Your task to perform on an android device: Open Youtube and go to the subscriptions tab Image 0: 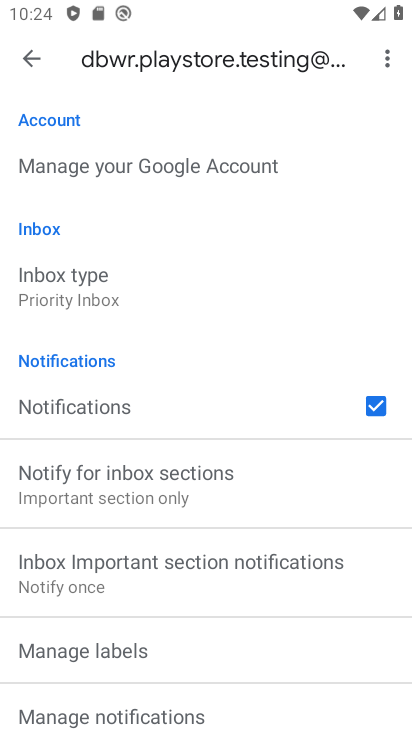
Step 0: press home button
Your task to perform on an android device: Open Youtube and go to the subscriptions tab Image 1: 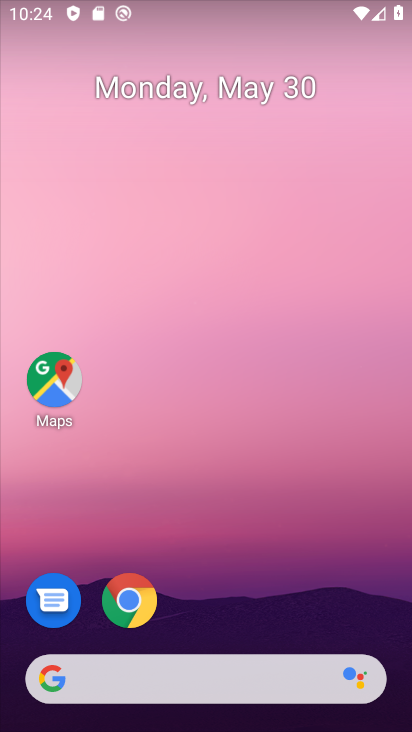
Step 1: drag from (292, 618) to (298, 188)
Your task to perform on an android device: Open Youtube and go to the subscriptions tab Image 2: 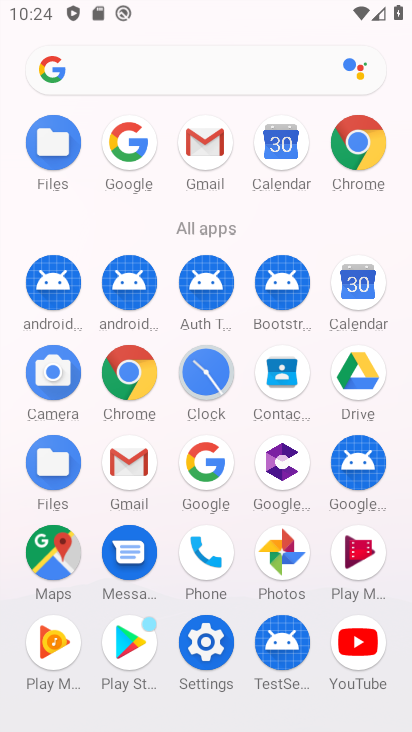
Step 2: click (361, 635)
Your task to perform on an android device: Open Youtube and go to the subscriptions tab Image 3: 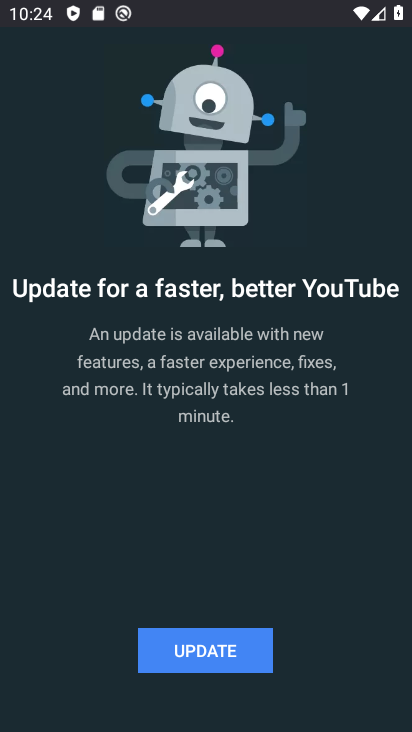
Step 3: click (230, 665)
Your task to perform on an android device: Open Youtube and go to the subscriptions tab Image 4: 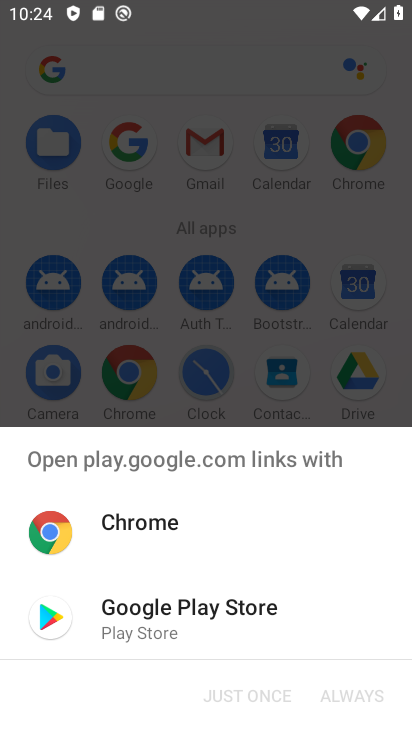
Step 4: click (206, 610)
Your task to perform on an android device: Open Youtube and go to the subscriptions tab Image 5: 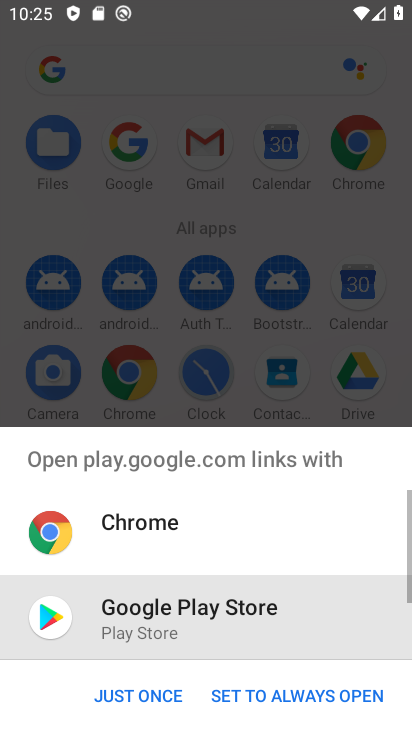
Step 5: click (268, 693)
Your task to perform on an android device: Open Youtube and go to the subscriptions tab Image 6: 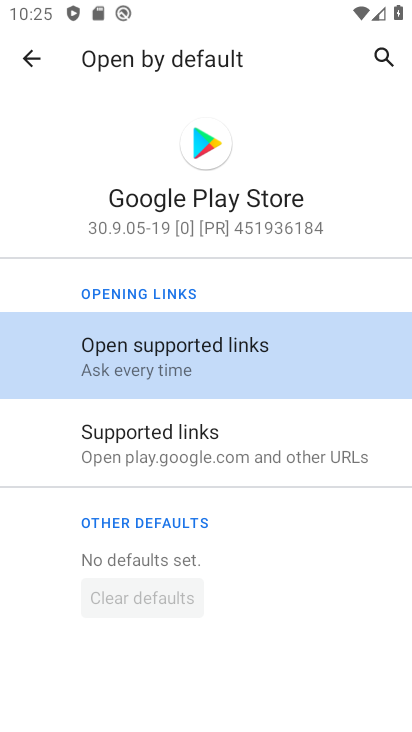
Step 6: press back button
Your task to perform on an android device: Open Youtube and go to the subscriptions tab Image 7: 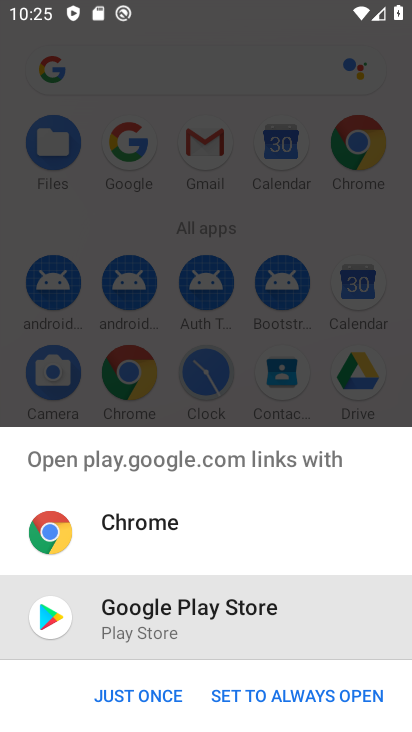
Step 7: click (148, 692)
Your task to perform on an android device: Open Youtube and go to the subscriptions tab Image 8: 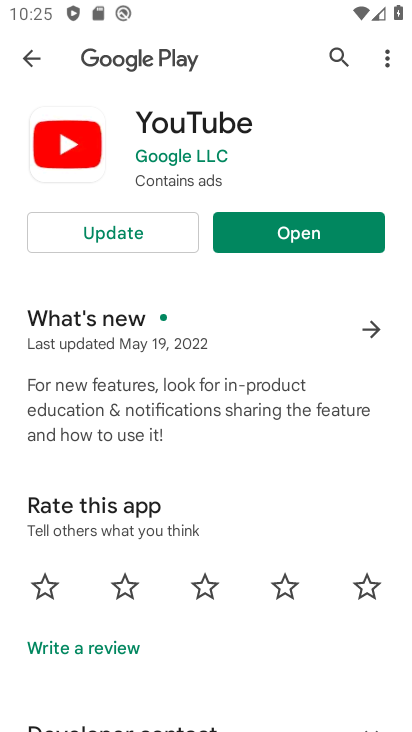
Step 8: click (109, 233)
Your task to perform on an android device: Open Youtube and go to the subscriptions tab Image 9: 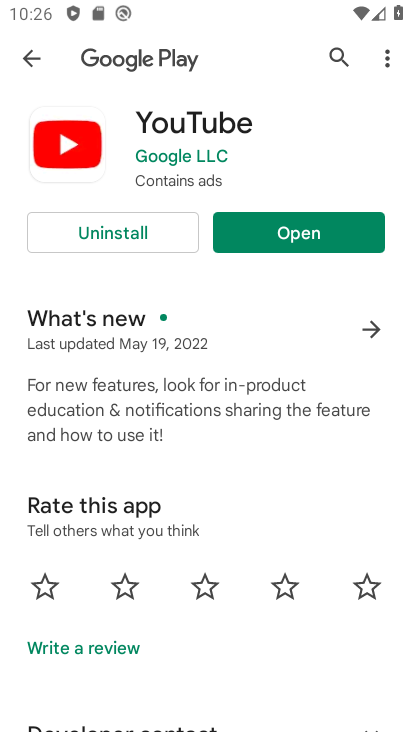
Step 9: click (278, 221)
Your task to perform on an android device: Open Youtube and go to the subscriptions tab Image 10: 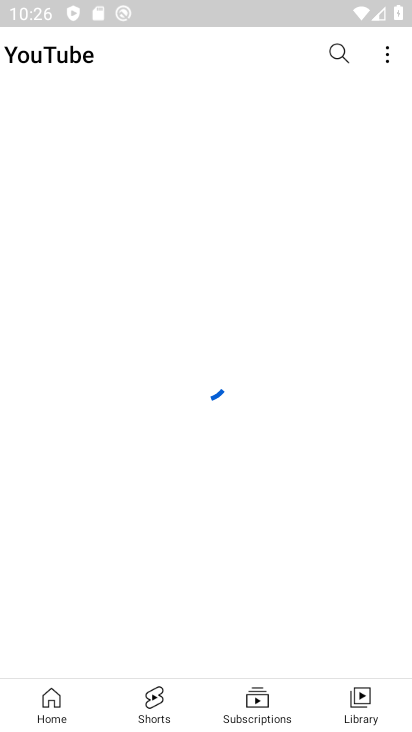
Step 10: click (260, 699)
Your task to perform on an android device: Open Youtube and go to the subscriptions tab Image 11: 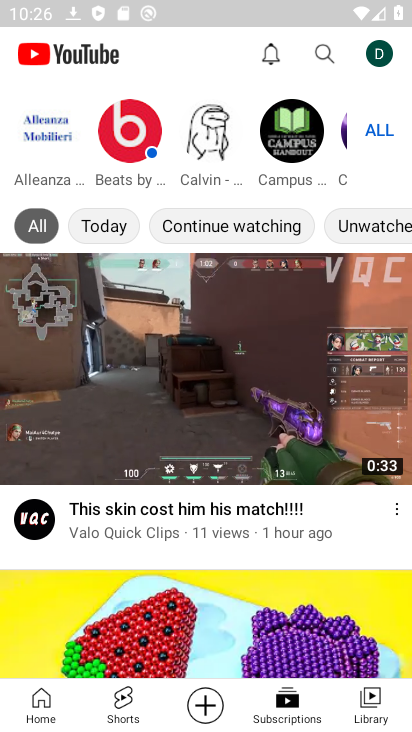
Step 11: task complete